Your task to perform on an android device: show emergency info Image 0: 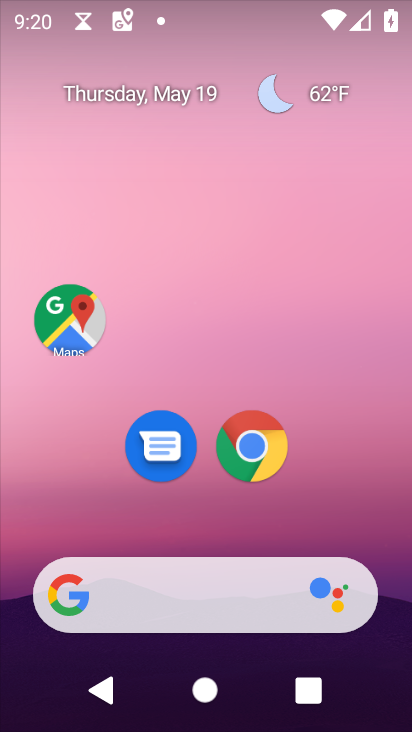
Step 0: drag from (196, 519) to (136, 57)
Your task to perform on an android device: show emergency info Image 1: 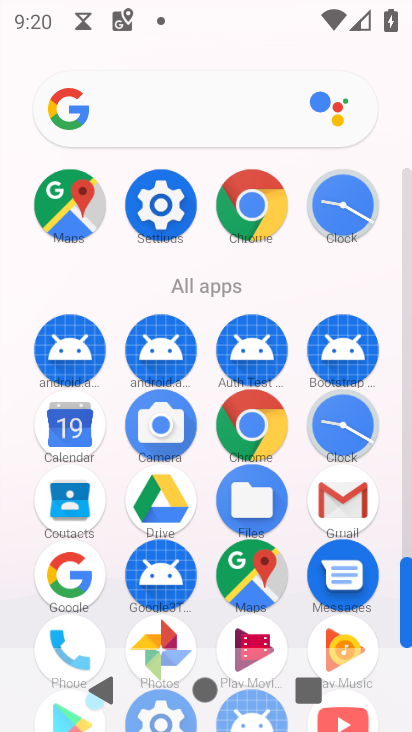
Step 1: click (161, 203)
Your task to perform on an android device: show emergency info Image 2: 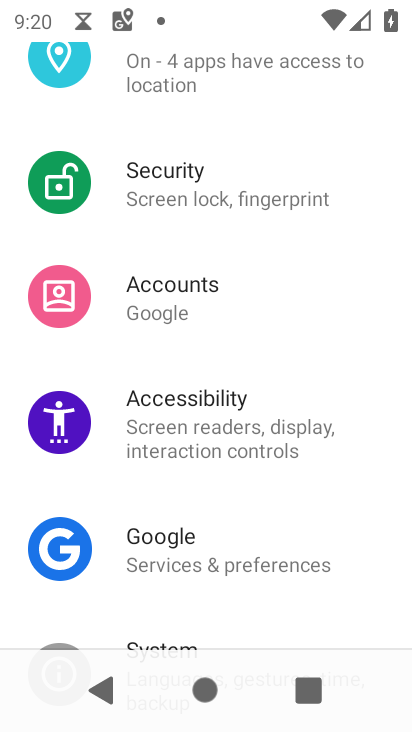
Step 2: drag from (184, 511) to (140, 333)
Your task to perform on an android device: show emergency info Image 3: 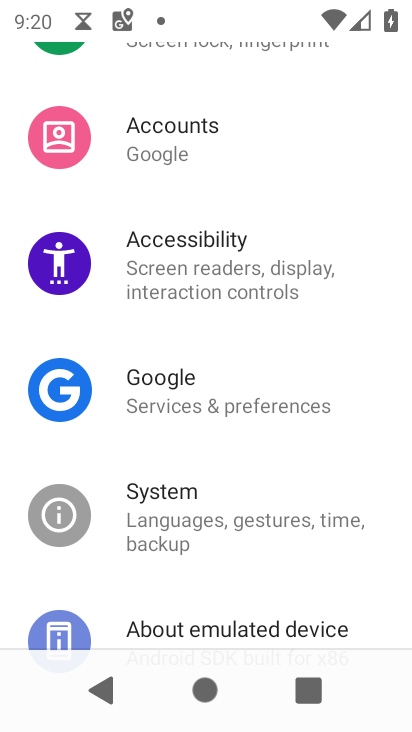
Step 3: drag from (154, 535) to (129, 337)
Your task to perform on an android device: show emergency info Image 4: 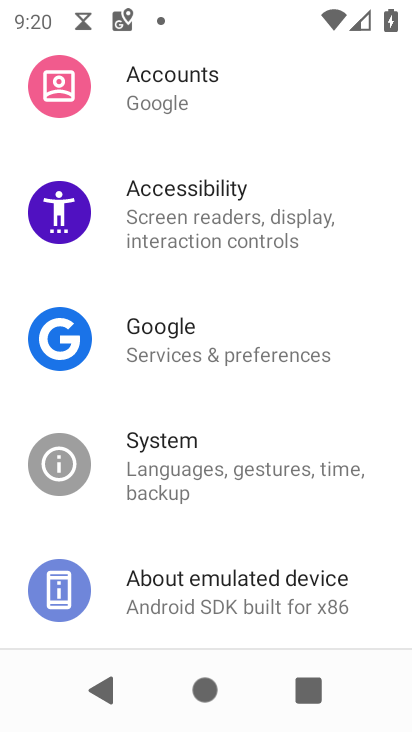
Step 4: click (130, 600)
Your task to perform on an android device: show emergency info Image 5: 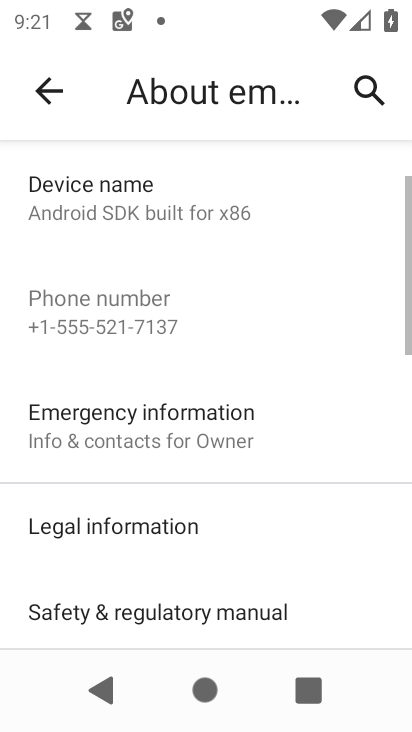
Step 5: click (139, 402)
Your task to perform on an android device: show emergency info Image 6: 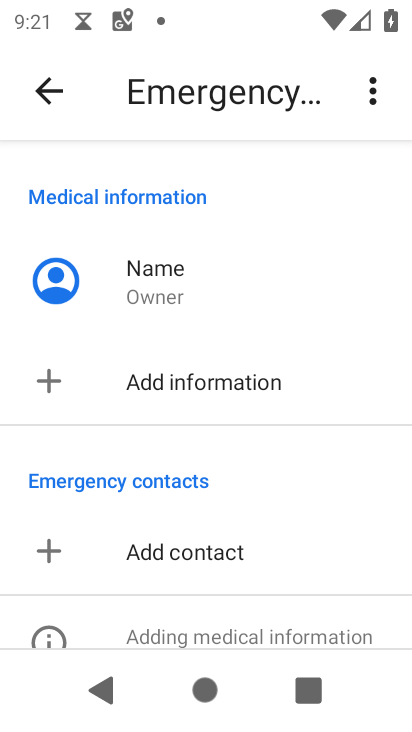
Step 6: task complete